Your task to perform on an android device: change the clock display to digital Image 0: 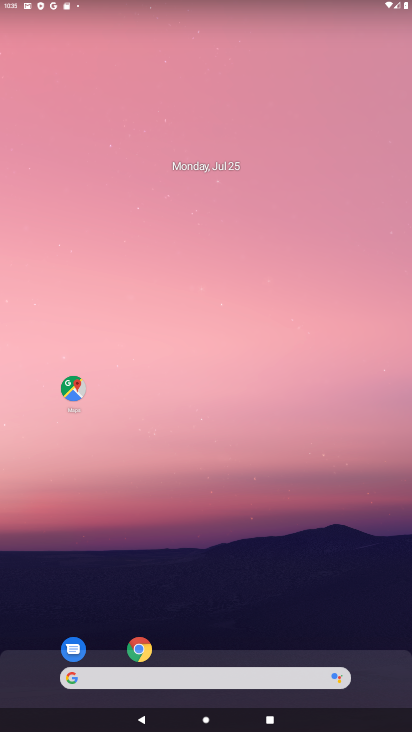
Step 0: drag from (286, 698) to (246, 87)
Your task to perform on an android device: change the clock display to digital Image 1: 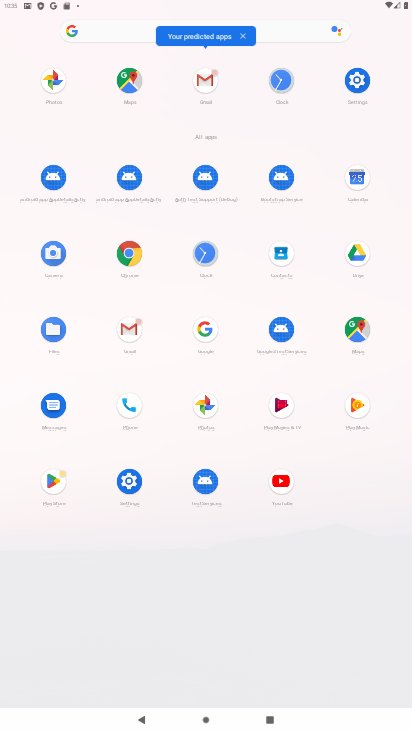
Step 1: click (211, 250)
Your task to perform on an android device: change the clock display to digital Image 2: 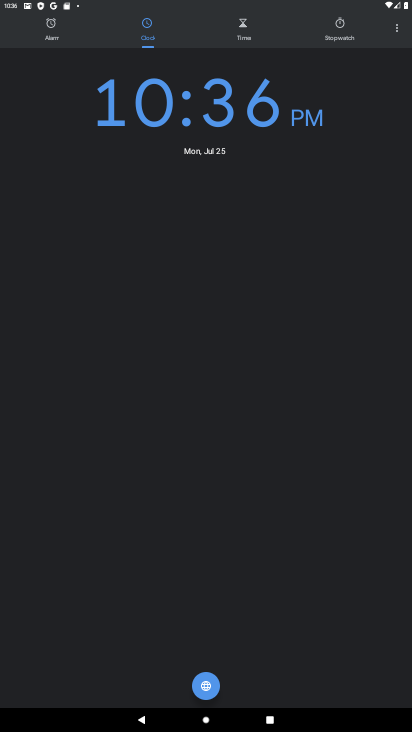
Step 2: click (395, 26)
Your task to perform on an android device: change the clock display to digital Image 3: 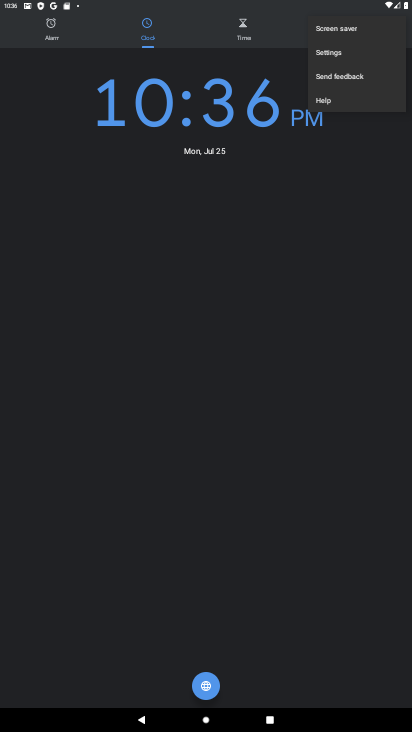
Step 3: click (330, 58)
Your task to perform on an android device: change the clock display to digital Image 4: 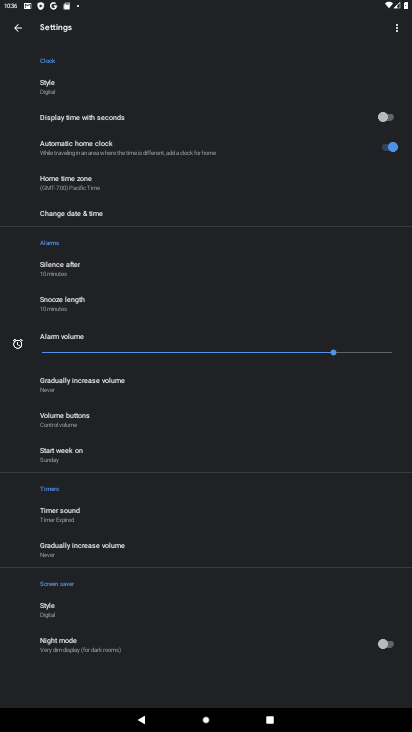
Step 4: click (69, 81)
Your task to perform on an android device: change the clock display to digital Image 5: 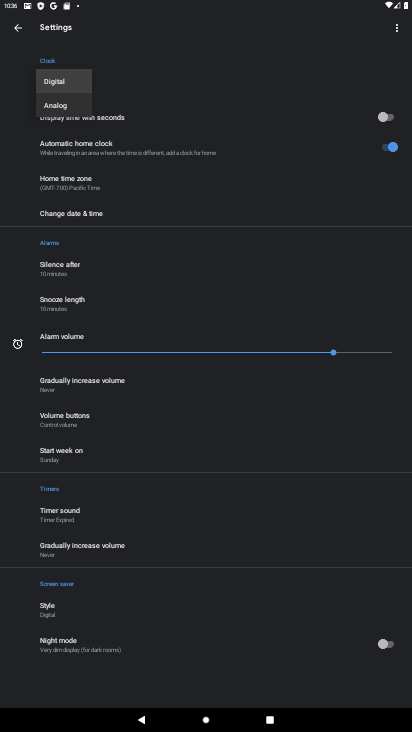
Step 5: task complete